Your task to perform on an android device: open app "Grab" (install if not already installed) Image 0: 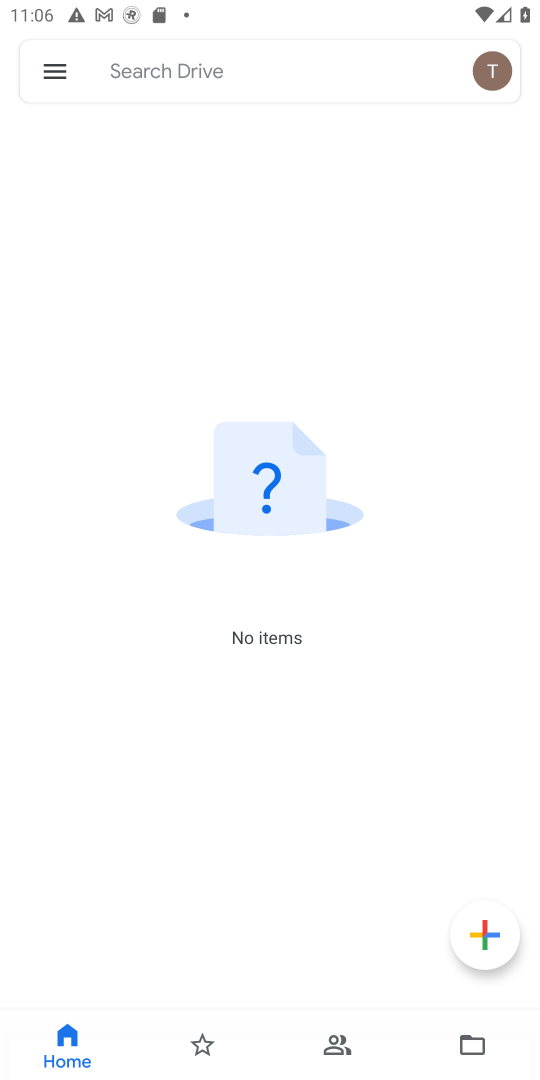
Step 0: press home button
Your task to perform on an android device: open app "Grab" (install if not already installed) Image 1: 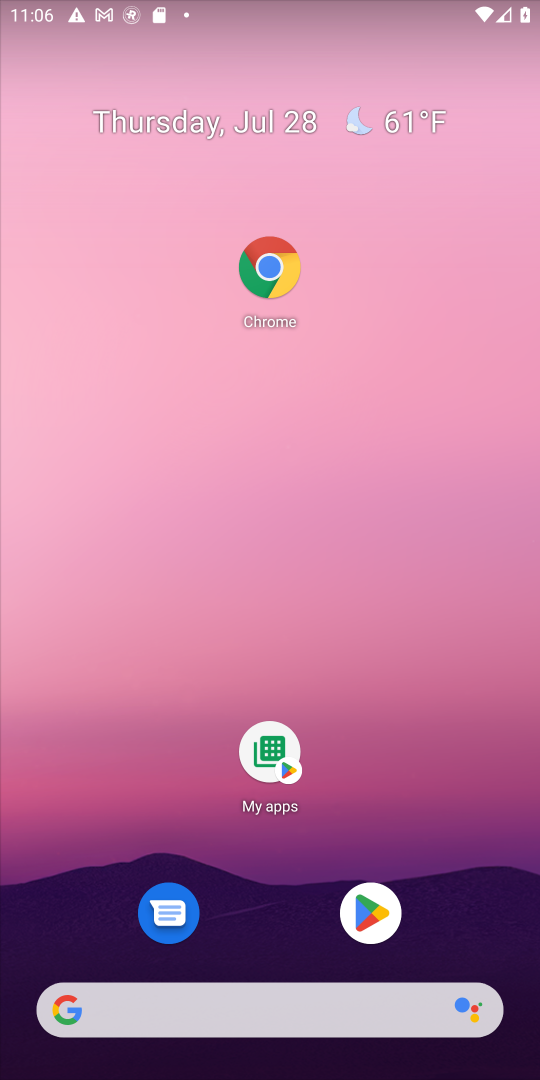
Step 1: click (362, 910)
Your task to perform on an android device: open app "Grab" (install if not already installed) Image 2: 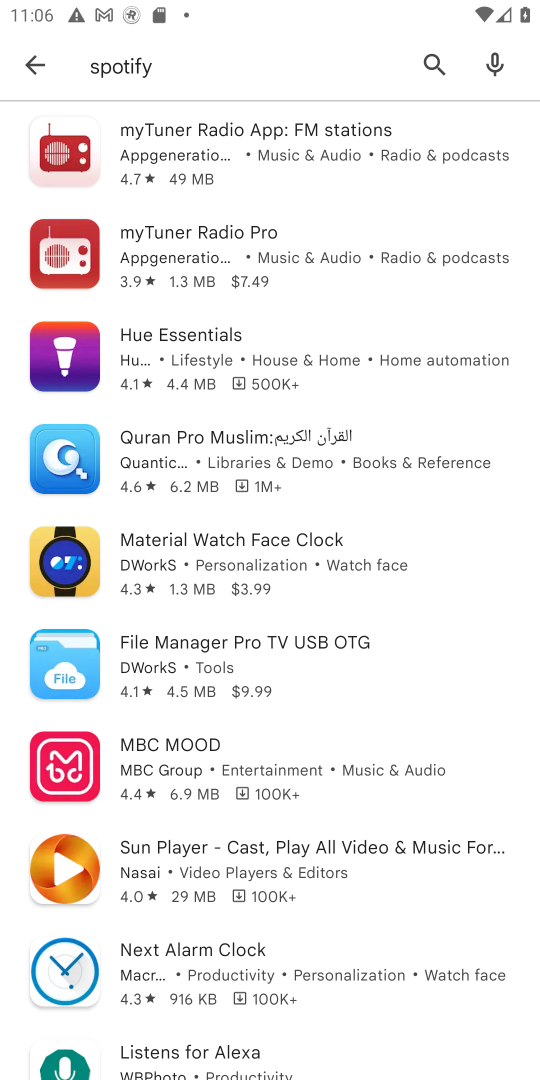
Step 2: click (429, 59)
Your task to perform on an android device: open app "Grab" (install if not already installed) Image 3: 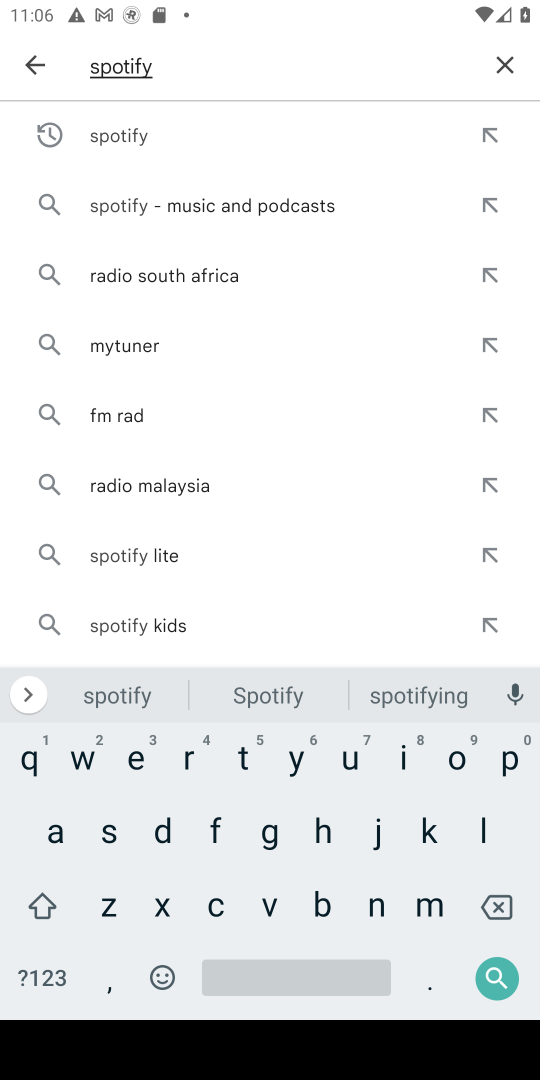
Step 3: click (502, 69)
Your task to perform on an android device: open app "Grab" (install if not already installed) Image 4: 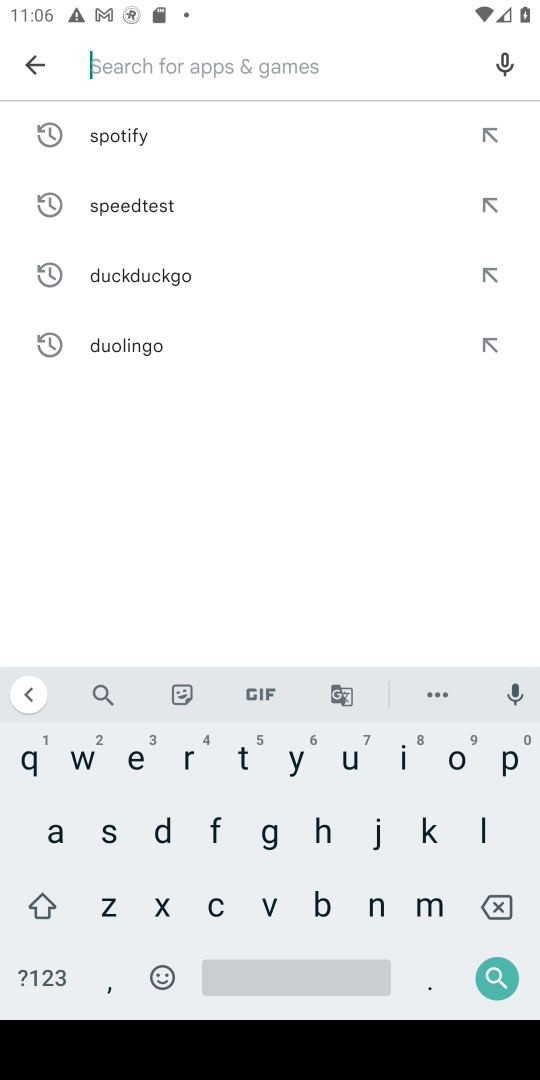
Step 4: click (272, 829)
Your task to perform on an android device: open app "Grab" (install if not already installed) Image 5: 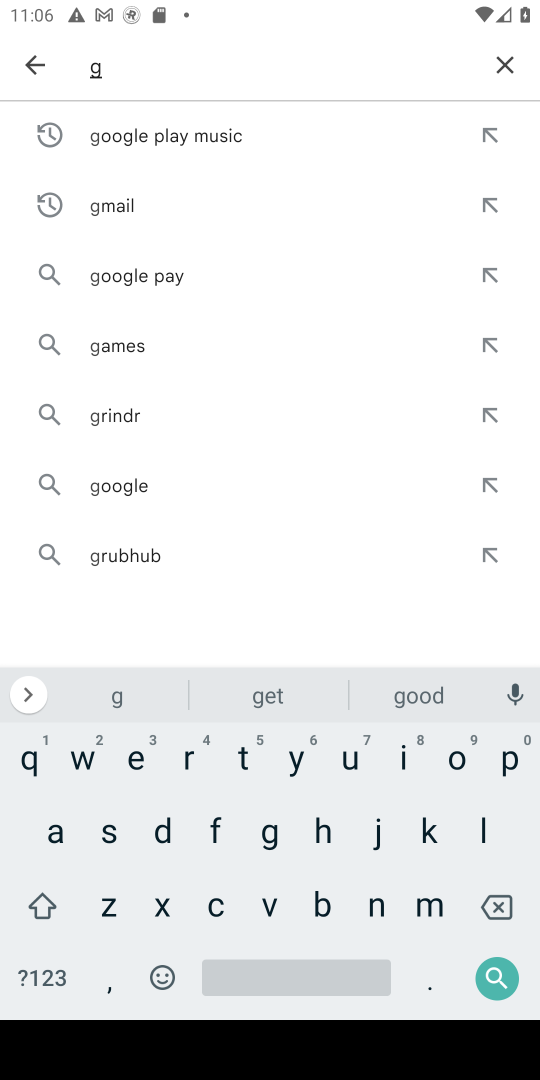
Step 5: click (186, 753)
Your task to perform on an android device: open app "Grab" (install if not already installed) Image 6: 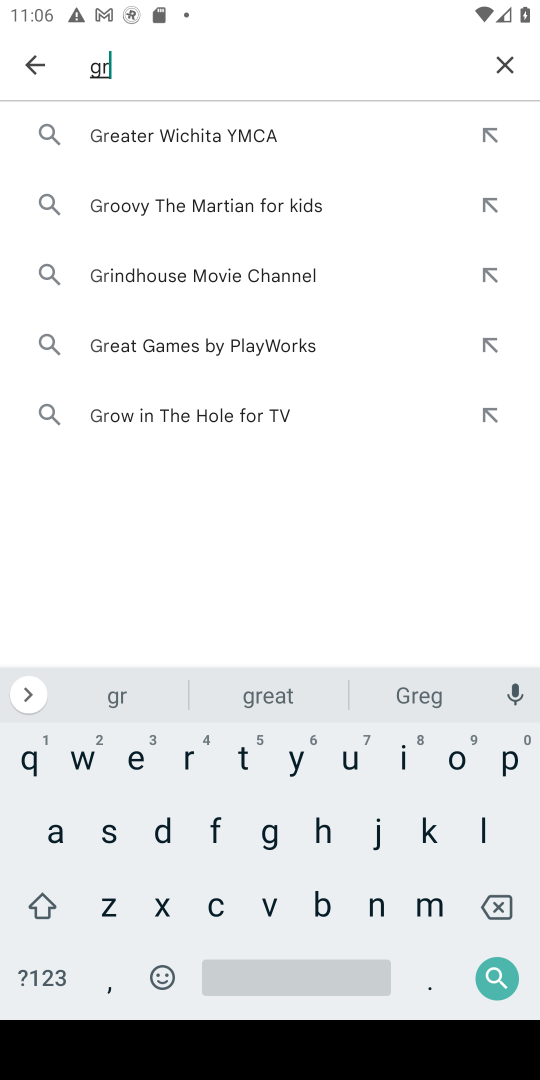
Step 6: click (48, 828)
Your task to perform on an android device: open app "Grab" (install if not already installed) Image 7: 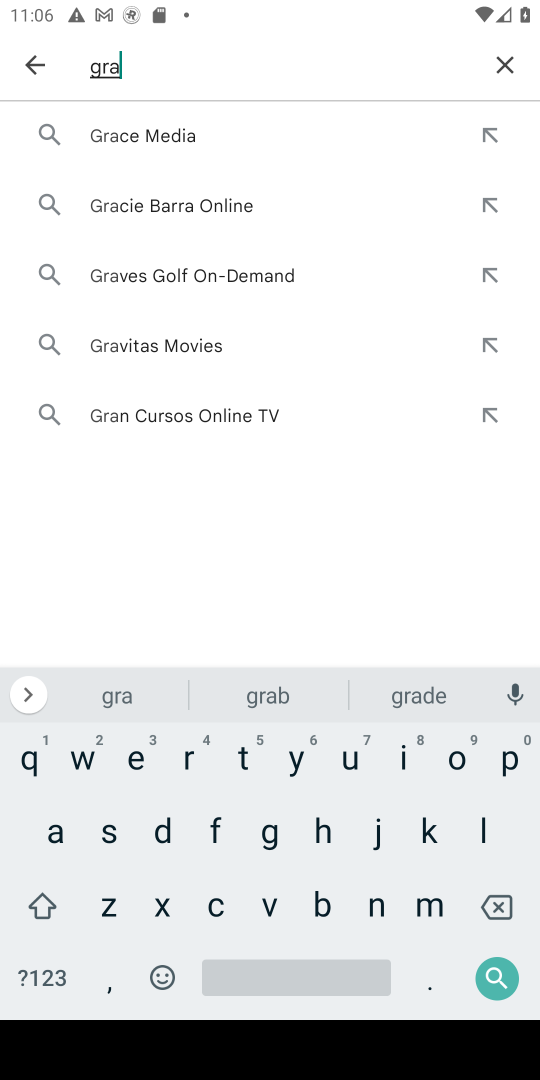
Step 7: click (304, 903)
Your task to perform on an android device: open app "Grab" (install if not already installed) Image 8: 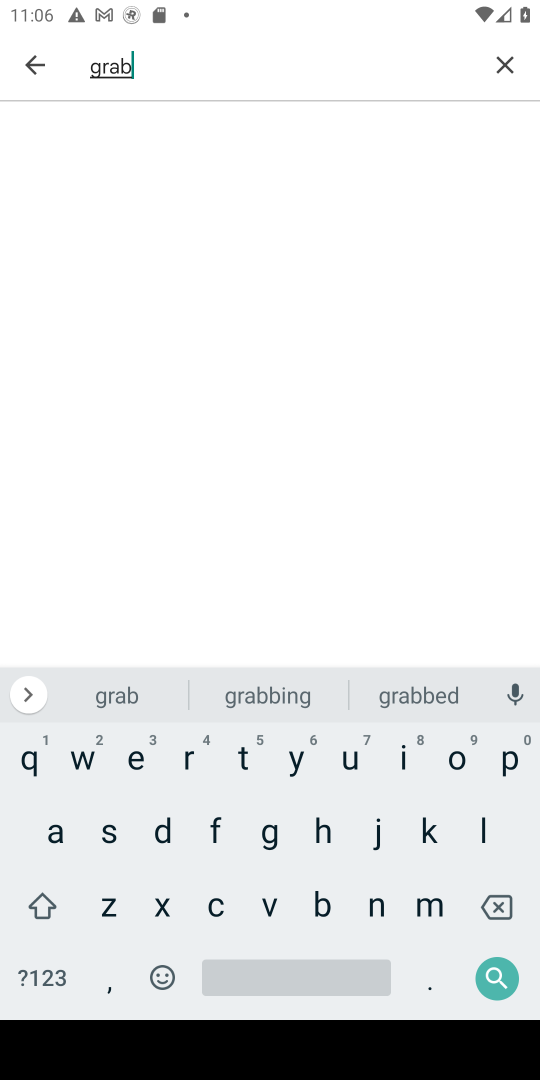
Step 8: click (496, 980)
Your task to perform on an android device: open app "Grab" (install if not already installed) Image 9: 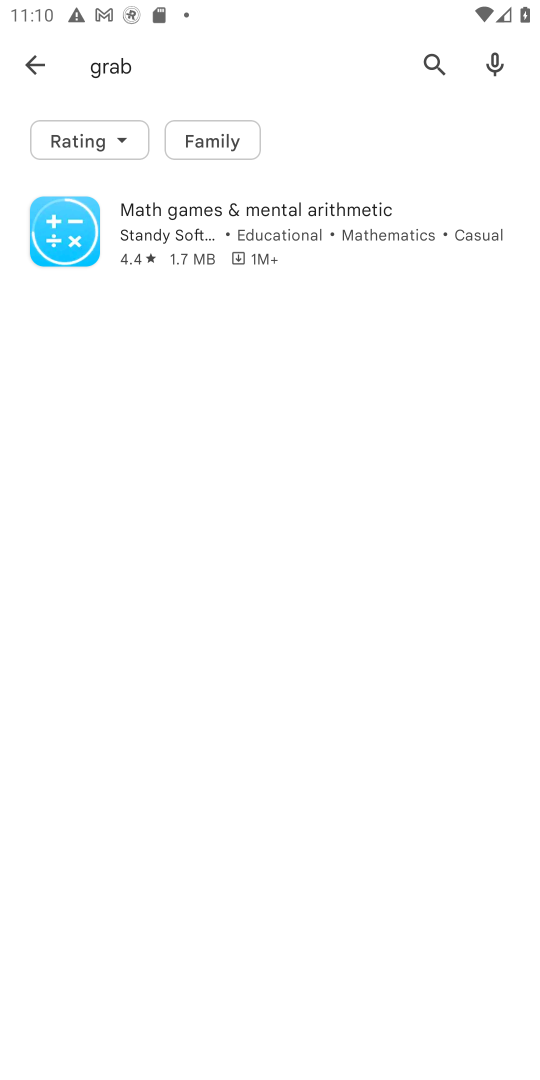
Step 9: task complete